Your task to perform on an android device: change the clock display to digital Image 0: 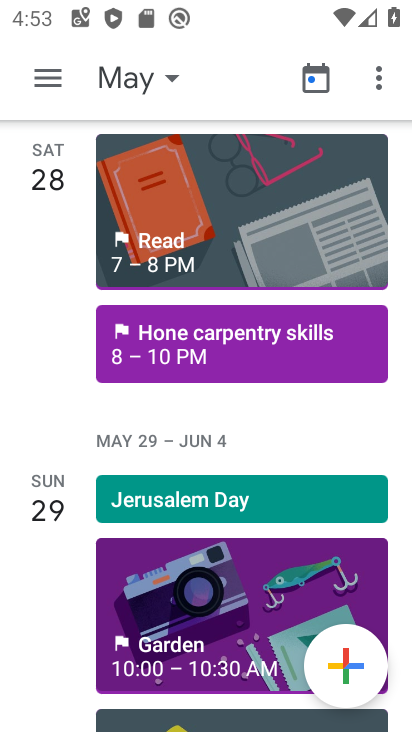
Step 0: press home button
Your task to perform on an android device: change the clock display to digital Image 1: 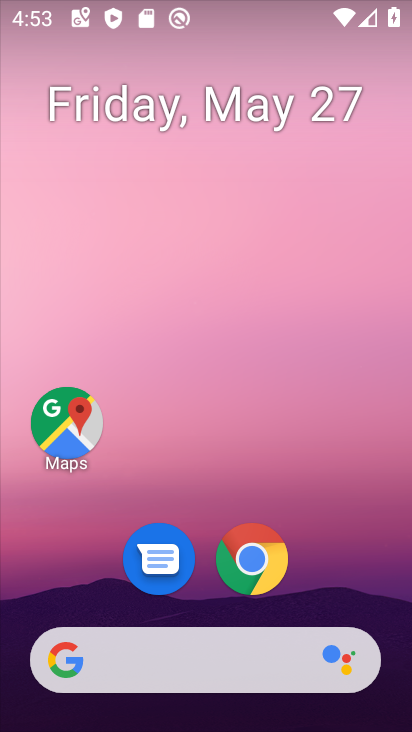
Step 1: drag from (242, 488) to (263, 79)
Your task to perform on an android device: change the clock display to digital Image 2: 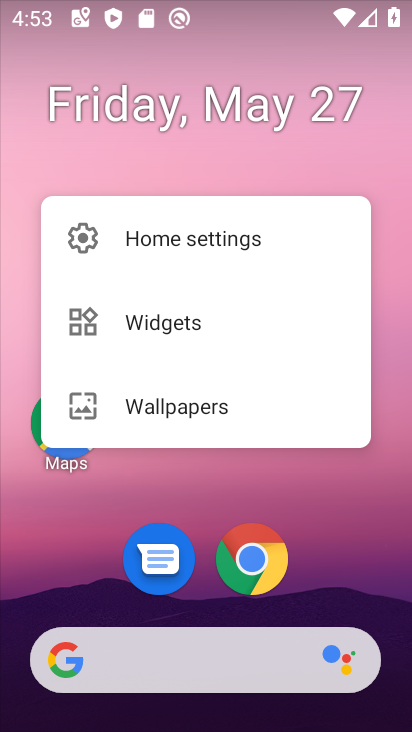
Step 2: click (153, 487)
Your task to perform on an android device: change the clock display to digital Image 3: 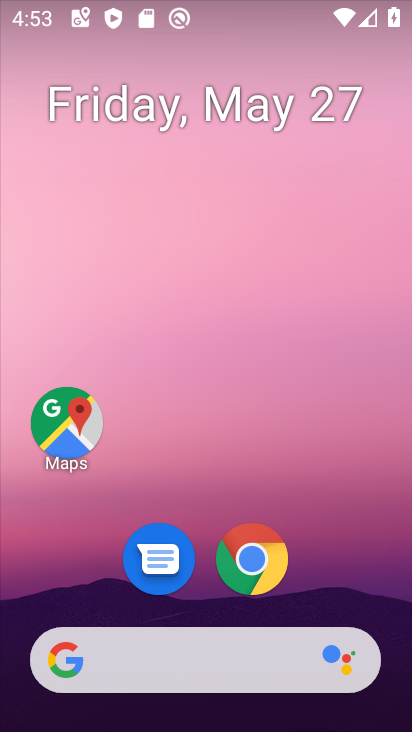
Step 3: drag from (354, 584) to (286, 69)
Your task to perform on an android device: change the clock display to digital Image 4: 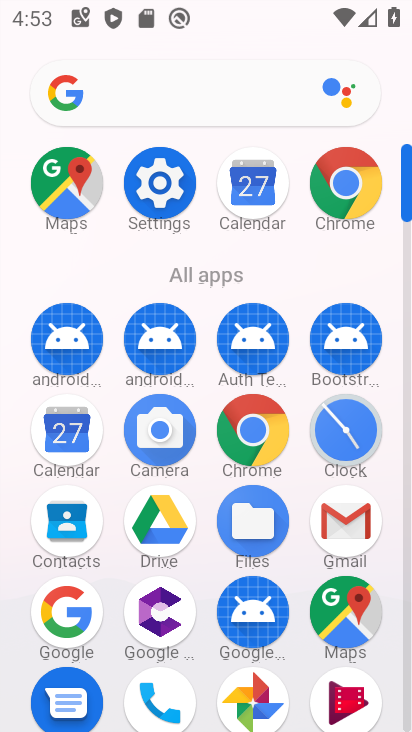
Step 4: click (356, 431)
Your task to perform on an android device: change the clock display to digital Image 5: 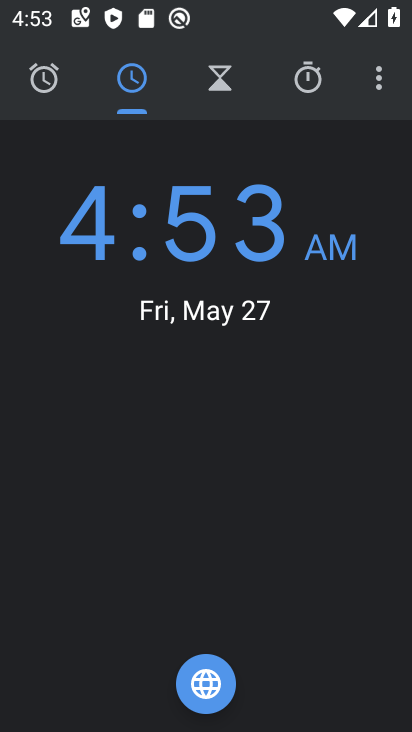
Step 5: click (378, 76)
Your task to perform on an android device: change the clock display to digital Image 6: 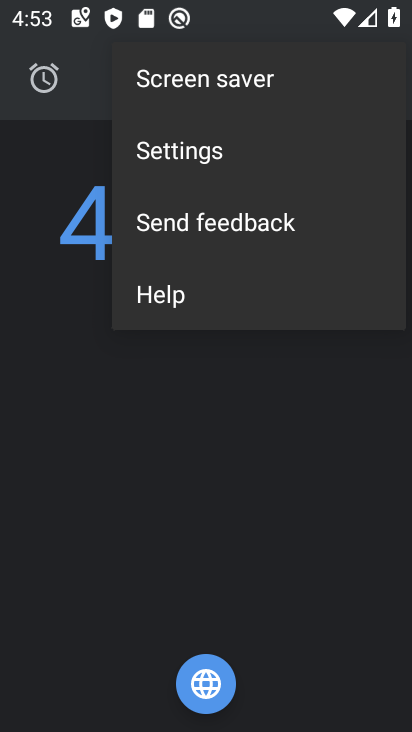
Step 6: click (202, 161)
Your task to perform on an android device: change the clock display to digital Image 7: 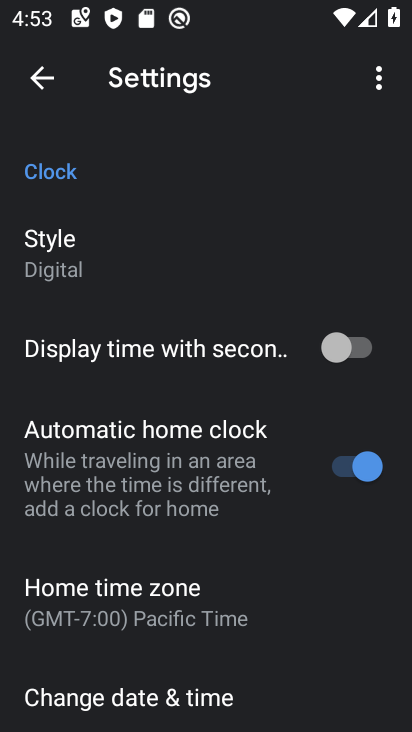
Step 7: click (63, 256)
Your task to perform on an android device: change the clock display to digital Image 8: 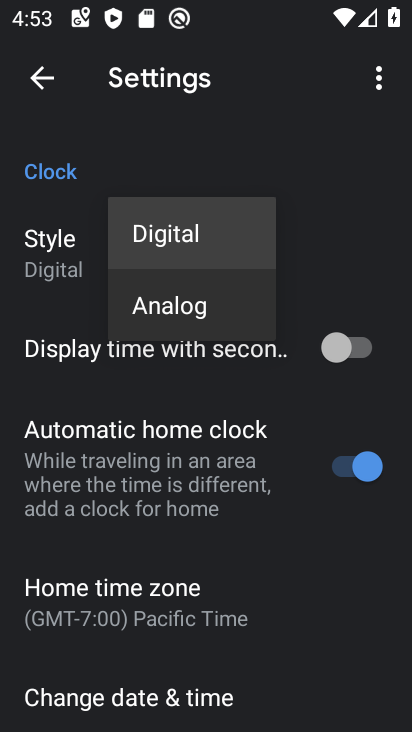
Step 8: click (166, 249)
Your task to perform on an android device: change the clock display to digital Image 9: 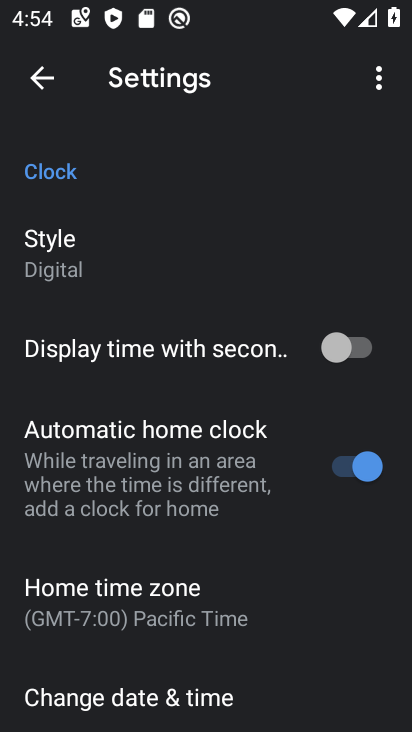
Step 9: task complete